Your task to perform on an android device: Search for Mexican restaurants on Maps Image 0: 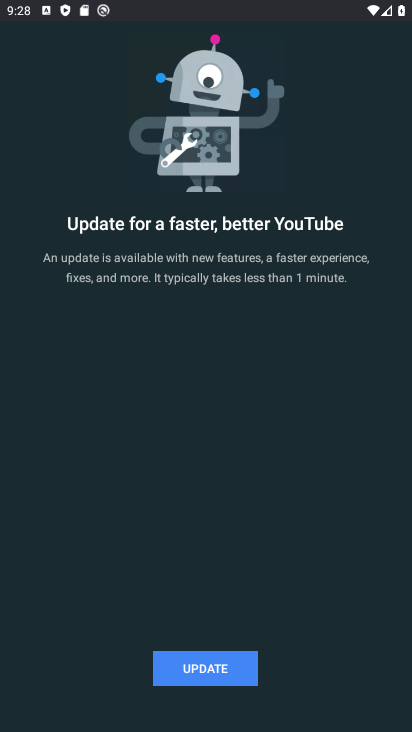
Step 0: press home button
Your task to perform on an android device: Search for Mexican restaurants on Maps Image 1: 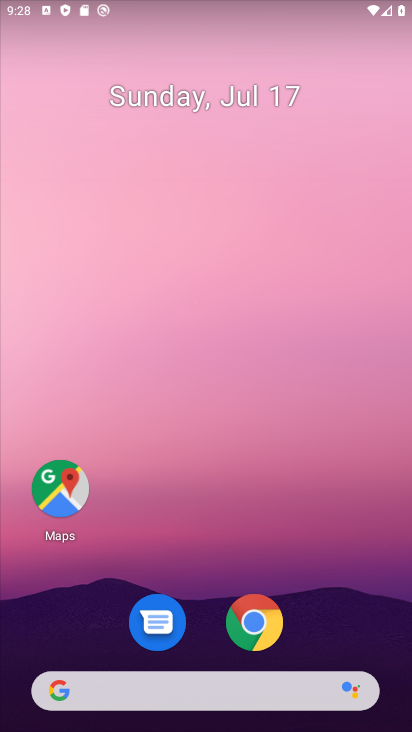
Step 1: click (58, 493)
Your task to perform on an android device: Search for Mexican restaurants on Maps Image 2: 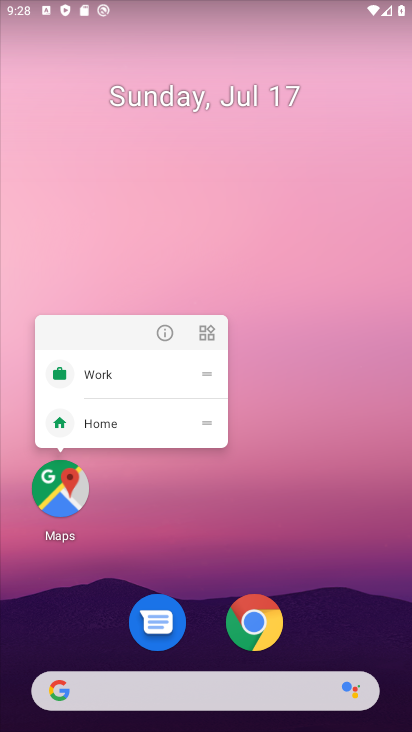
Step 2: click (47, 472)
Your task to perform on an android device: Search for Mexican restaurants on Maps Image 3: 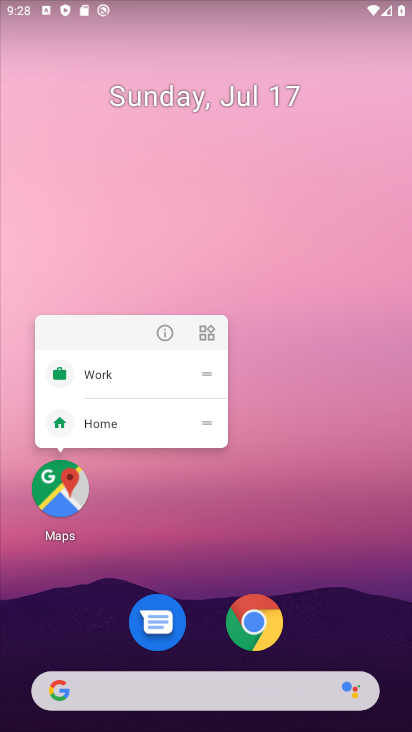
Step 3: click (48, 472)
Your task to perform on an android device: Search for Mexican restaurants on Maps Image 4: 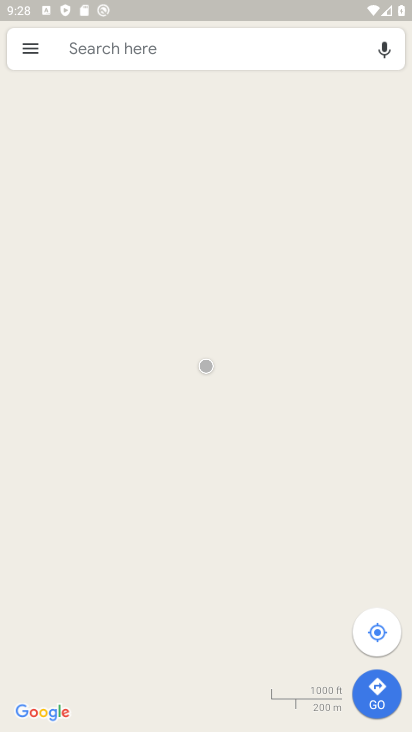
Step 4: click (111, 54)
Your task to perform on an android device: Search for Mexican restaurants on Maps Image 5: 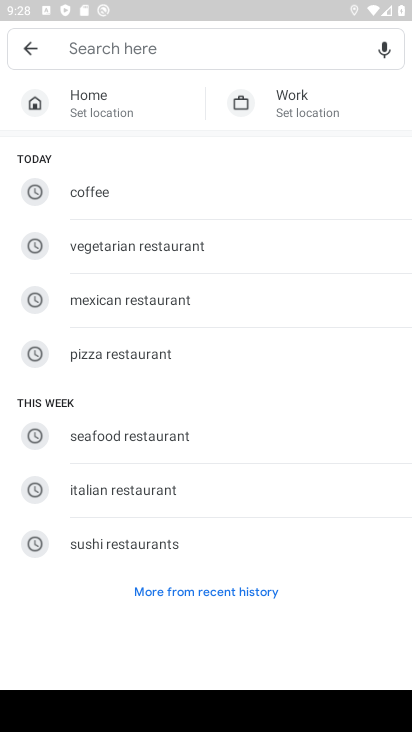
Step 5: type "mexi"
Your task to perform on an android device: Search for Mexican restaurants on Maps Image 6: 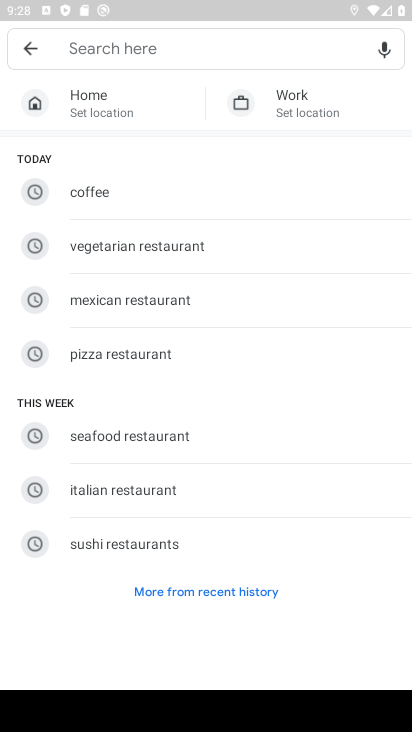
Step 6: click (217, 296)
Your task to perform on an android device: Search for Mexican restaurants on Maps Image 7: 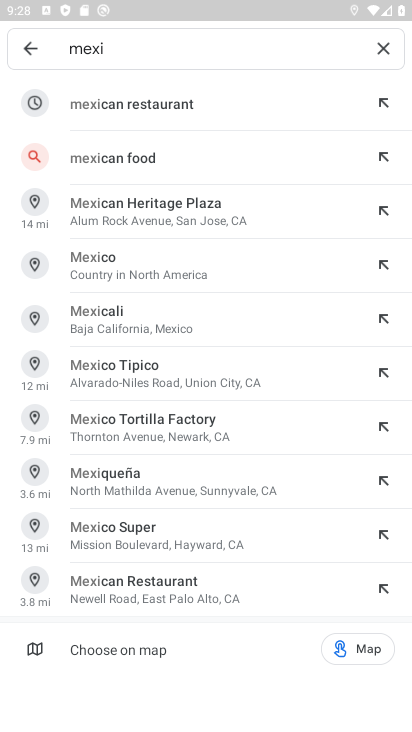
Step 7: task complete